Your task to perform on an android device: open the mobile data screen to see how much data has been used Image 0: 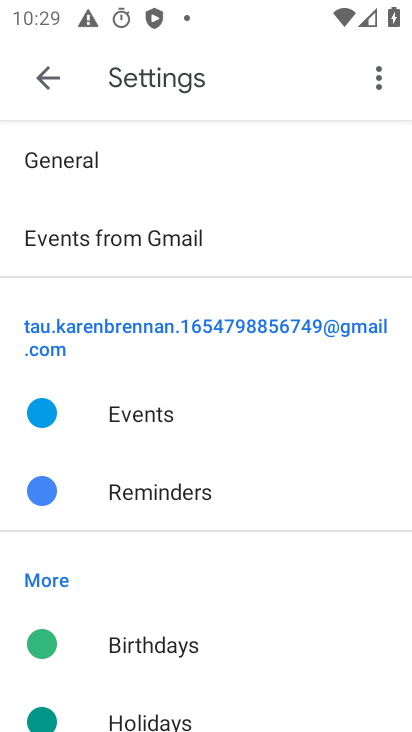
Step 0: press home button
Your task to perform on an android device: open the mobile data screen to see how much data has been used Image 1: 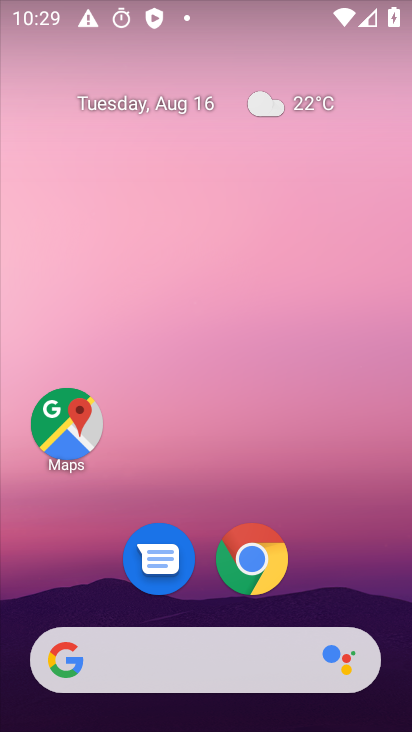
Step 1: drag from (197, 568) to (198, 59)
Your task to perform on an android device: open the mobile data screen to see how much data has been used Image 2: 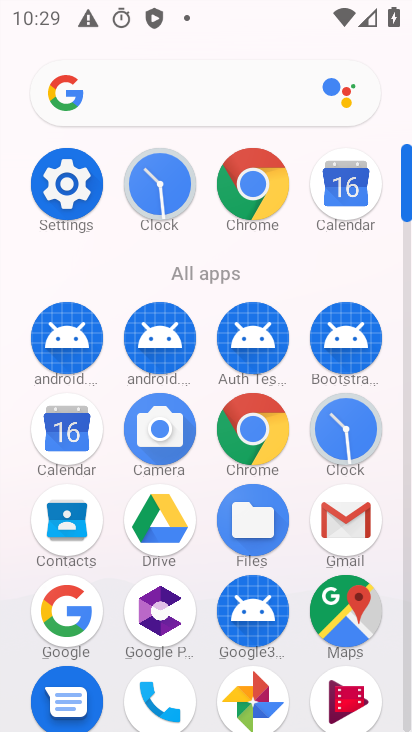
Step 2: click (67, 181)
Your task to perform on an android device: open the mobile data screen to see how much data has been used Image 3: 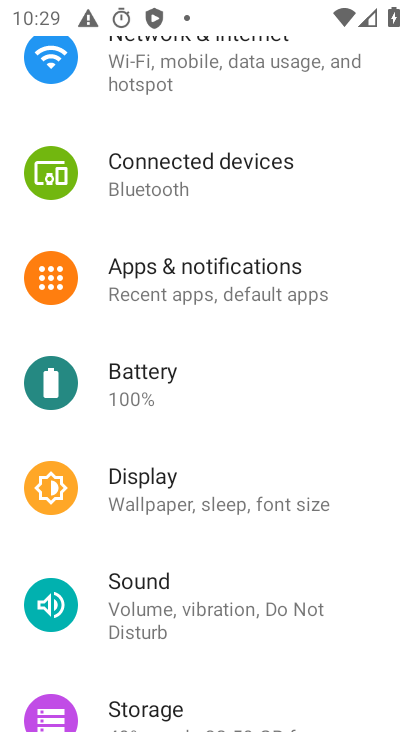
Step 3: drag from (206, 178) to (144, 693)
Your task to perform on an android device: open the mobile data screen to see how much data has been used Image 4: 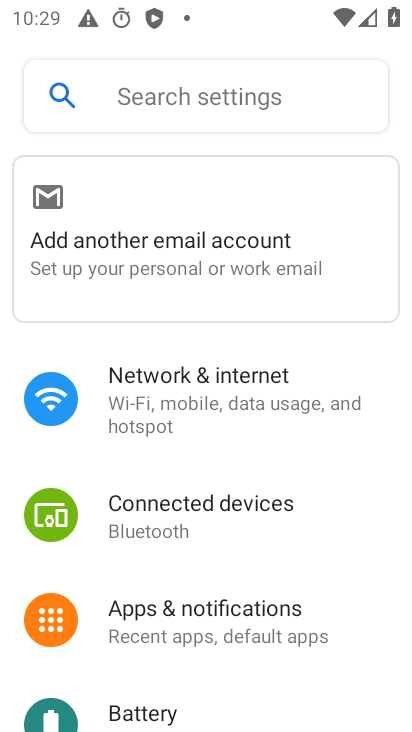
Step 4: click (213, 379)
Your task to perform on an android device: open the mobile data screen to see how much data has been used Image 5: 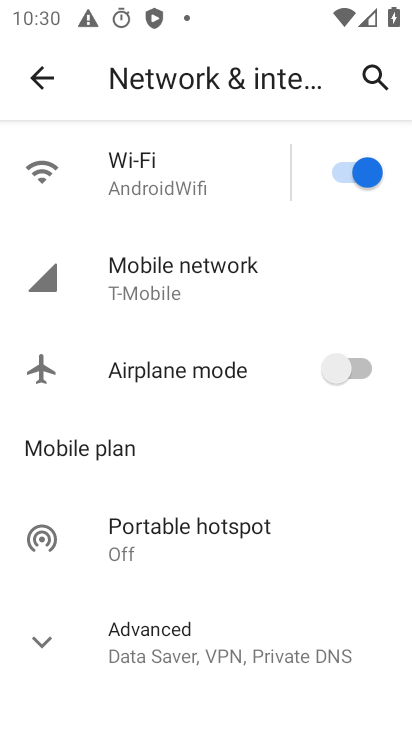
Step 5: click (175, 276)
Your task to perform on an android device: open the mobile data screen to see how much data has been used Image 6: 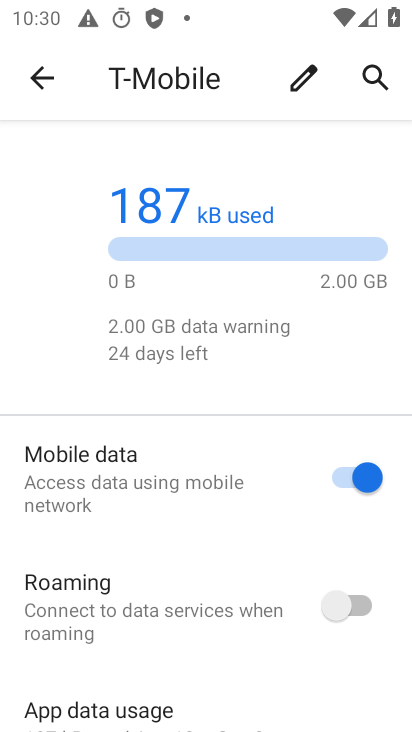
Step 6: task complete